Your task to perform on an android device: Open Reddit.com Image 0: 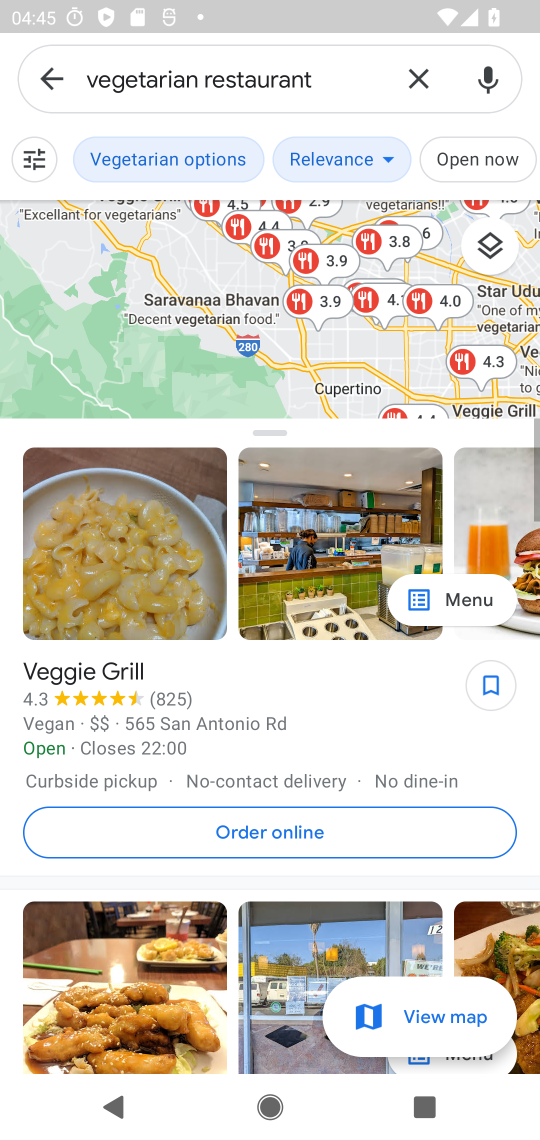
Step 0: press home button
Your task to perform on an android device: Open Reddit.com Image 1: 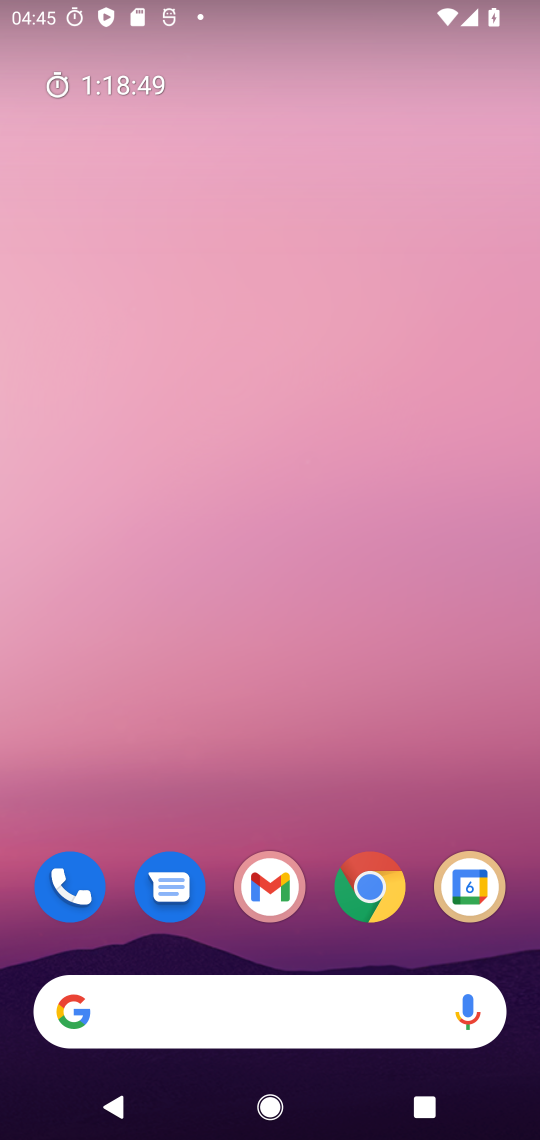
Step 1: drag from (413, 801) to (425, 221)
Your task to perform on an android device: Open Reddit.com Image 2: 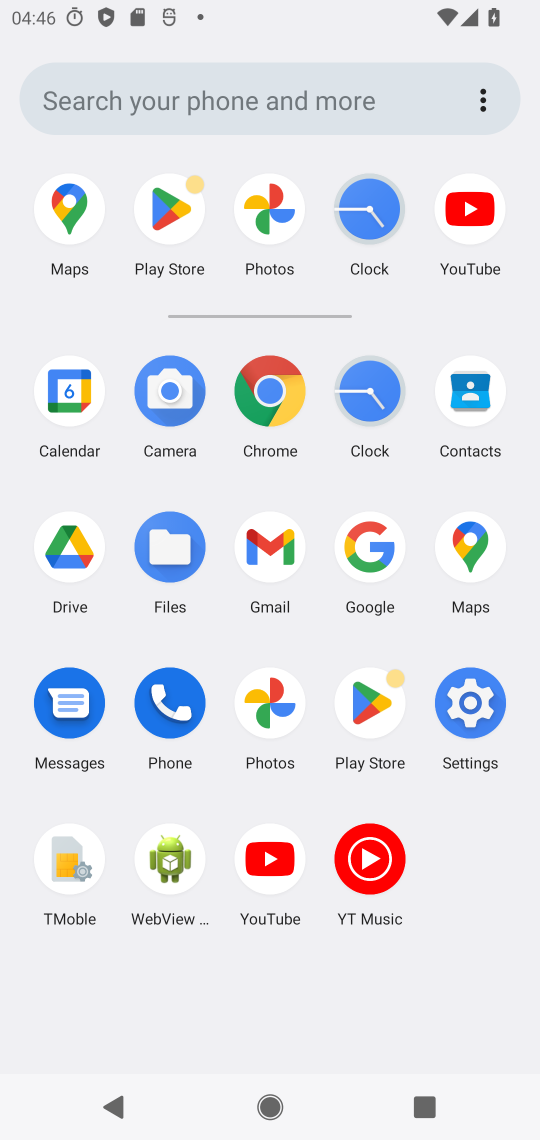
Step 2: click (257, 394)
Your task to perform on an android device: Open Reddit.com Image 3: 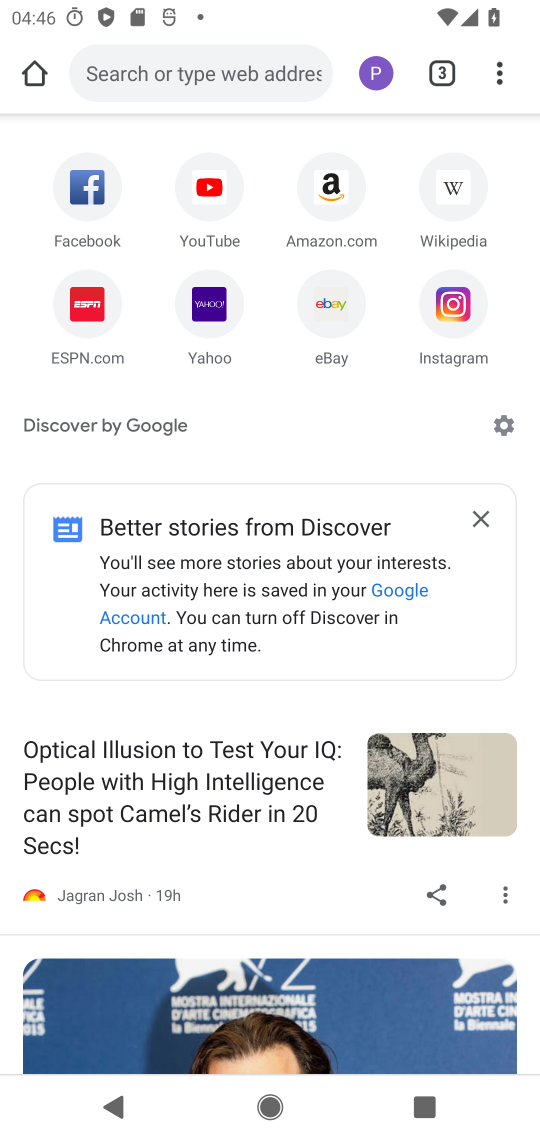
Step 3: click (304, 73)
Your task to perform on an android device: Open Reddit.com Image 4: 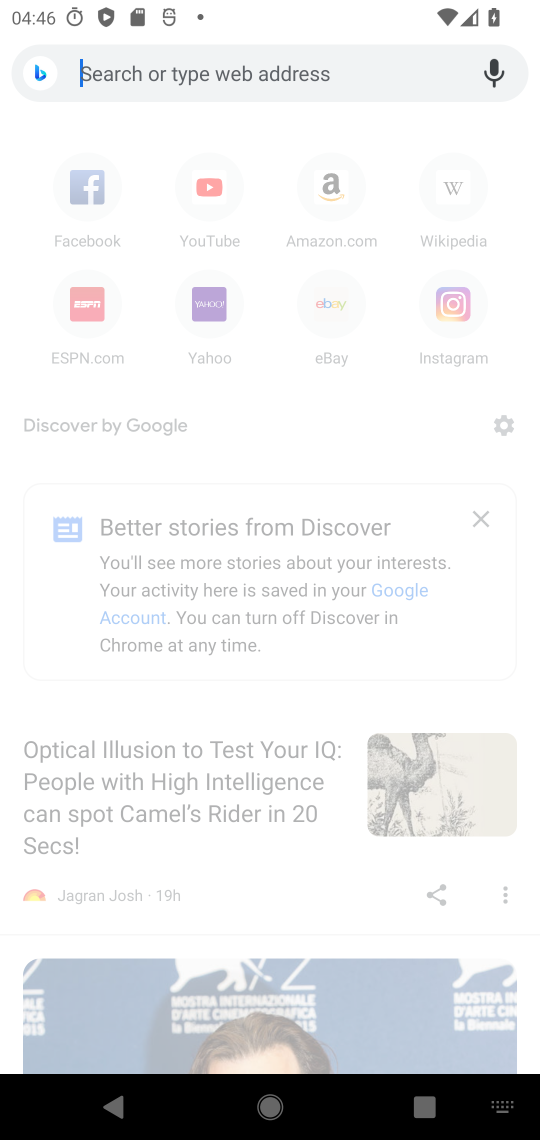
Step 4: type "reddit.com"
Your task to perform on an android device: Open Reddit.com Image 5: 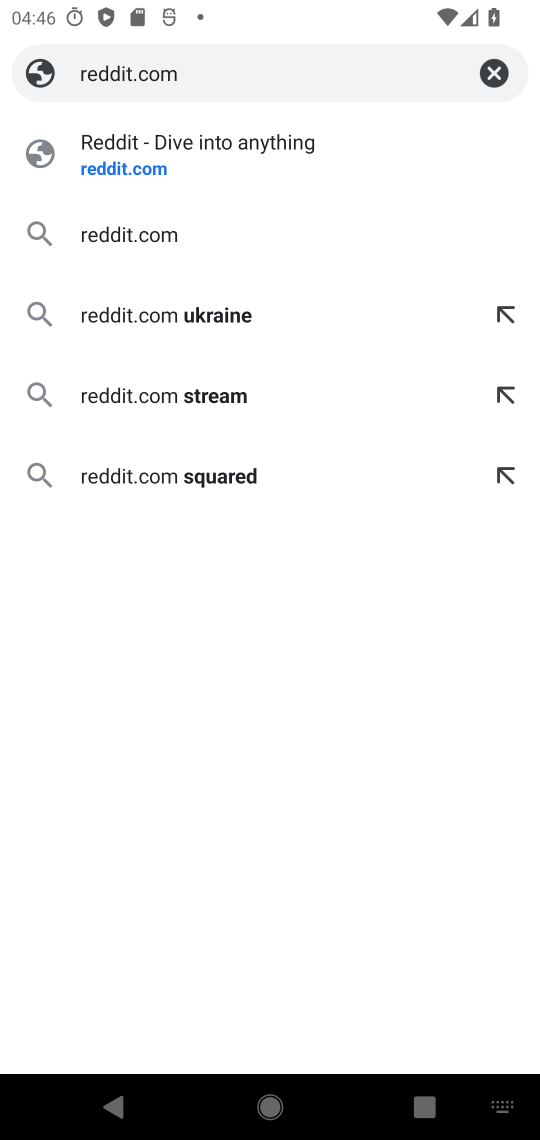
Step 5: click (161, 158)
Your task to perform on an android device: Open Reddit.com Image 6: 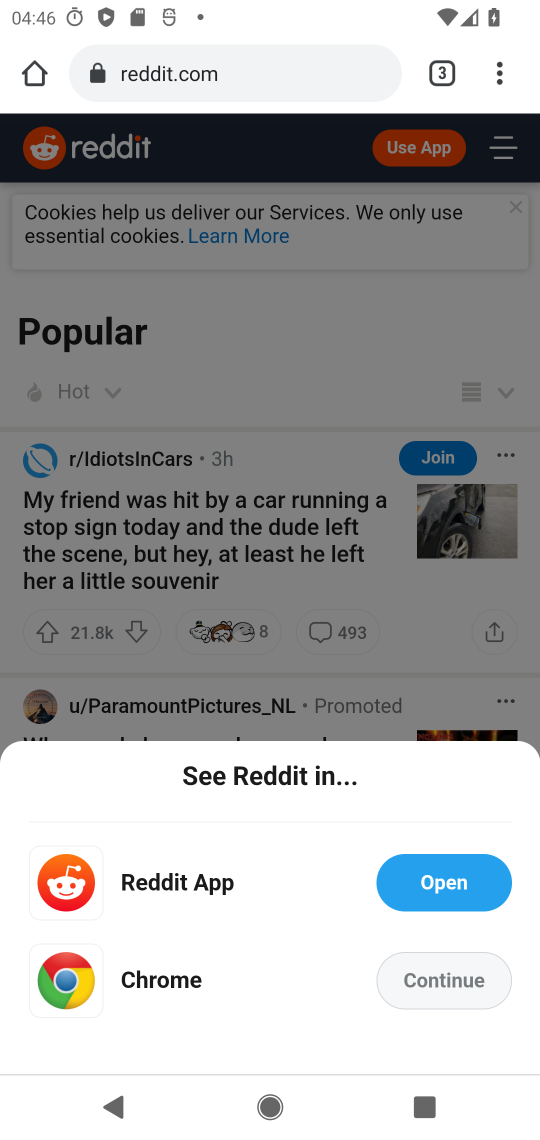
Step 6: task complete